Your task to perform on an android device: turn off priority inbox in the gmail app Image 0: 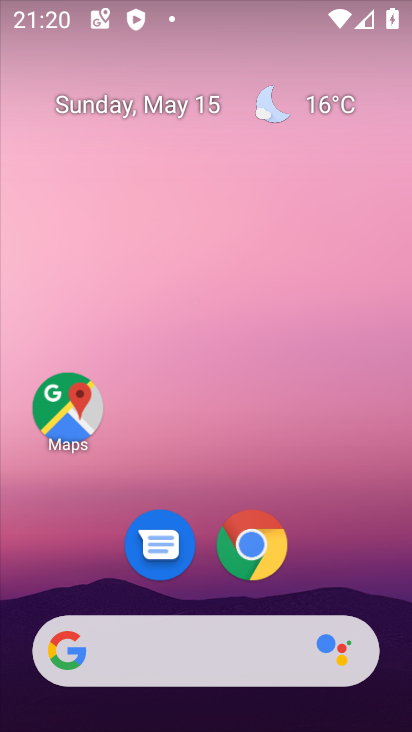
Step 0: drag from (330, 555) to (190, 190)
Your task to perform on an android device: turn off priority inbox in the gmail app Image 1: 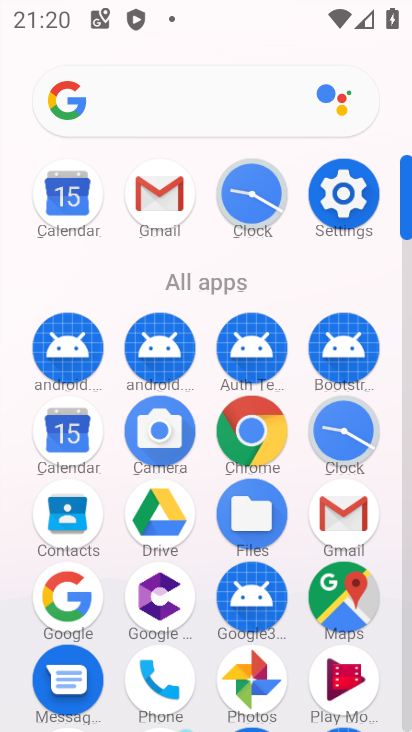
Step 1: click (158, 197)
Your task to perform on an android device: turn off priority inbox in the gmail app Image 2: 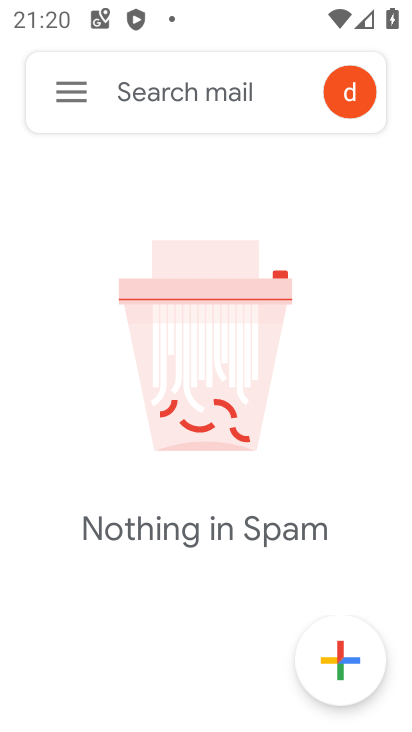
Step 2: click (66, 93)
Your task to perform on an android device: turn off priority inbox in the gmail app Image 3: 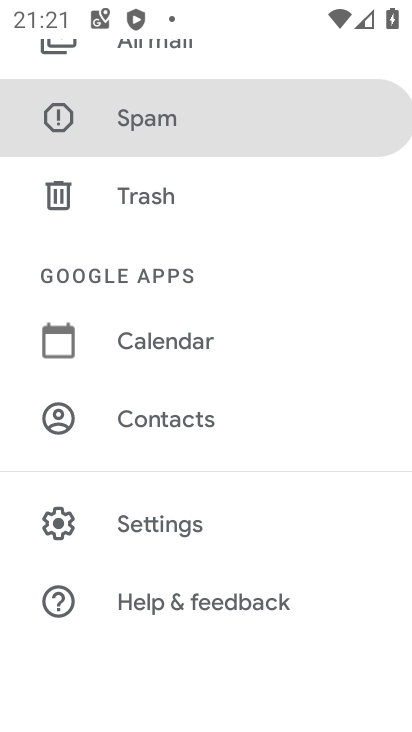
Step 3: click (151, 528)
Your task to perform on an android device: turn off priority inbox in the gmail app Image 4: 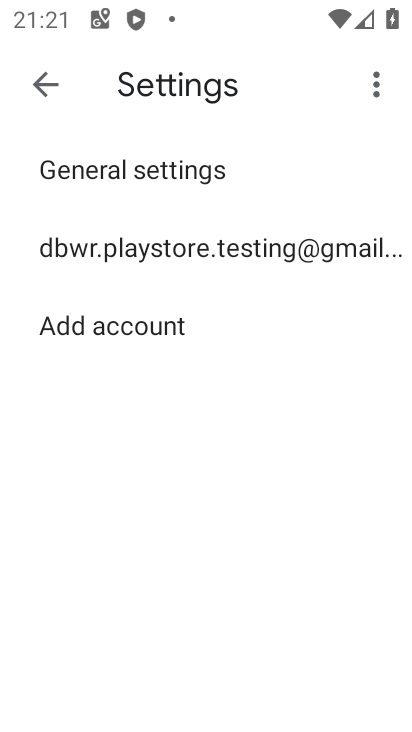
Step 4: click (184, 248)
Your task to perform on an android device: turn off priority inbox in the gmail app Image 5: 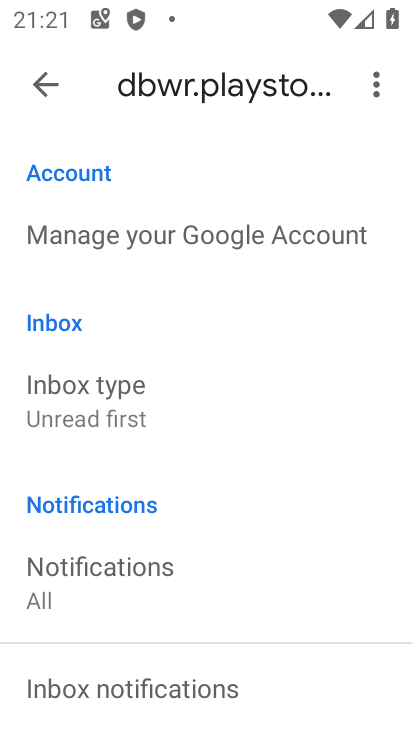
Step 5: click (114, 404)
Your task to perform on an android device: turn off priority inbox in the gmail app Image 6: 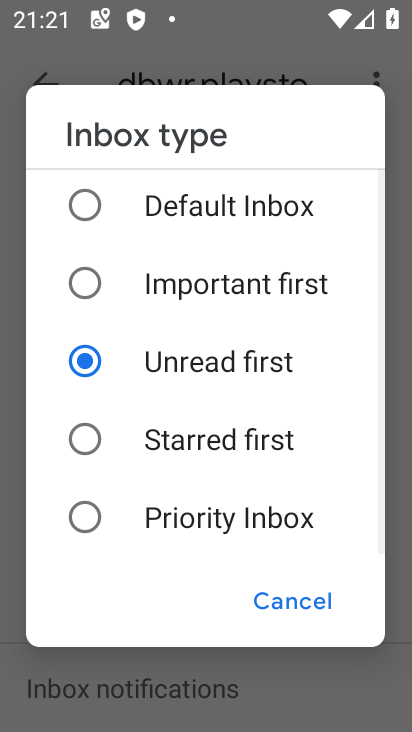
Step 6: click (86, 364)
Your task to perform on an android device: turn off priority inbox in the gmail app Image 7: 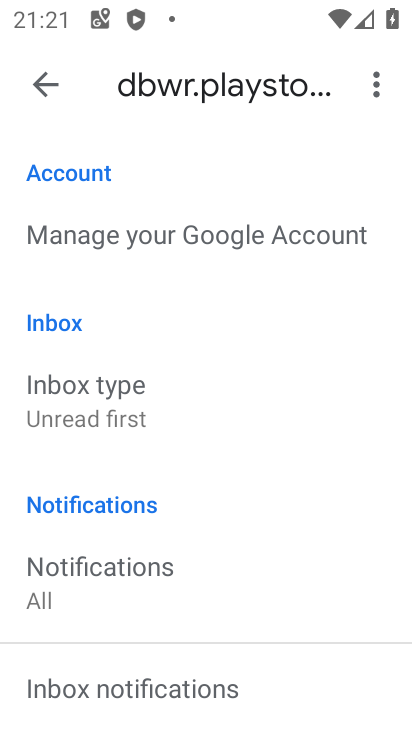
Step 7: task complete